Your task to perform on an android device: Go to Amazon Image 0: 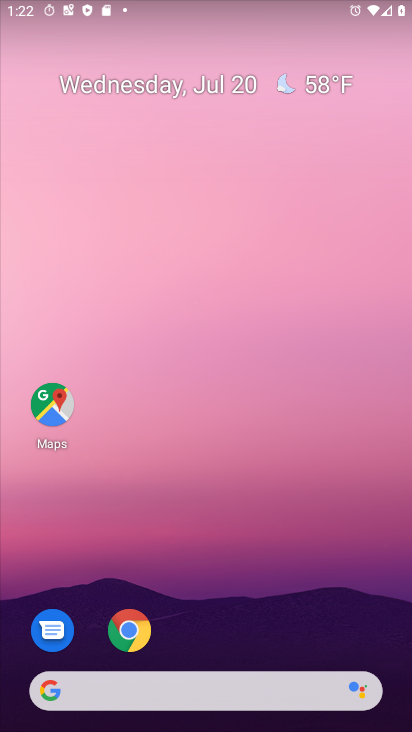
Step 0: press home button
Your task to perform on an android device: Go to Amazon Image 1: 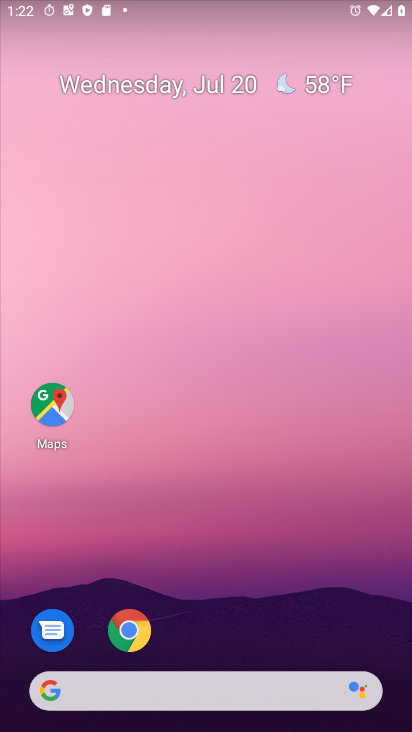
Step 1: click (126, 626)
Your task to perform on an android device: Go to Amazon Image 2: 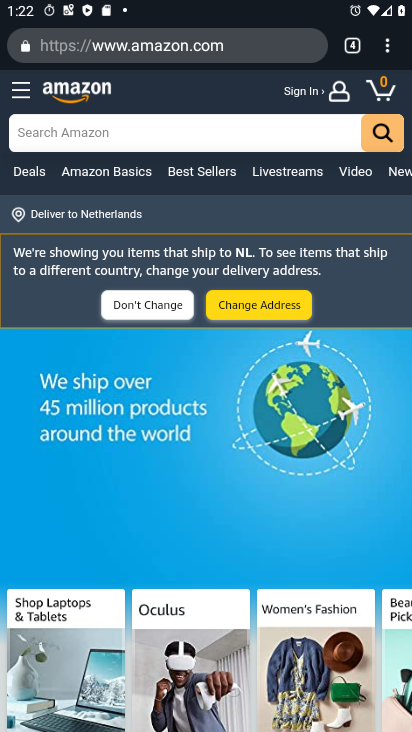
Step 2: task complete